Your task to perform on an android device: uninstall "Google Play services" Image 0: 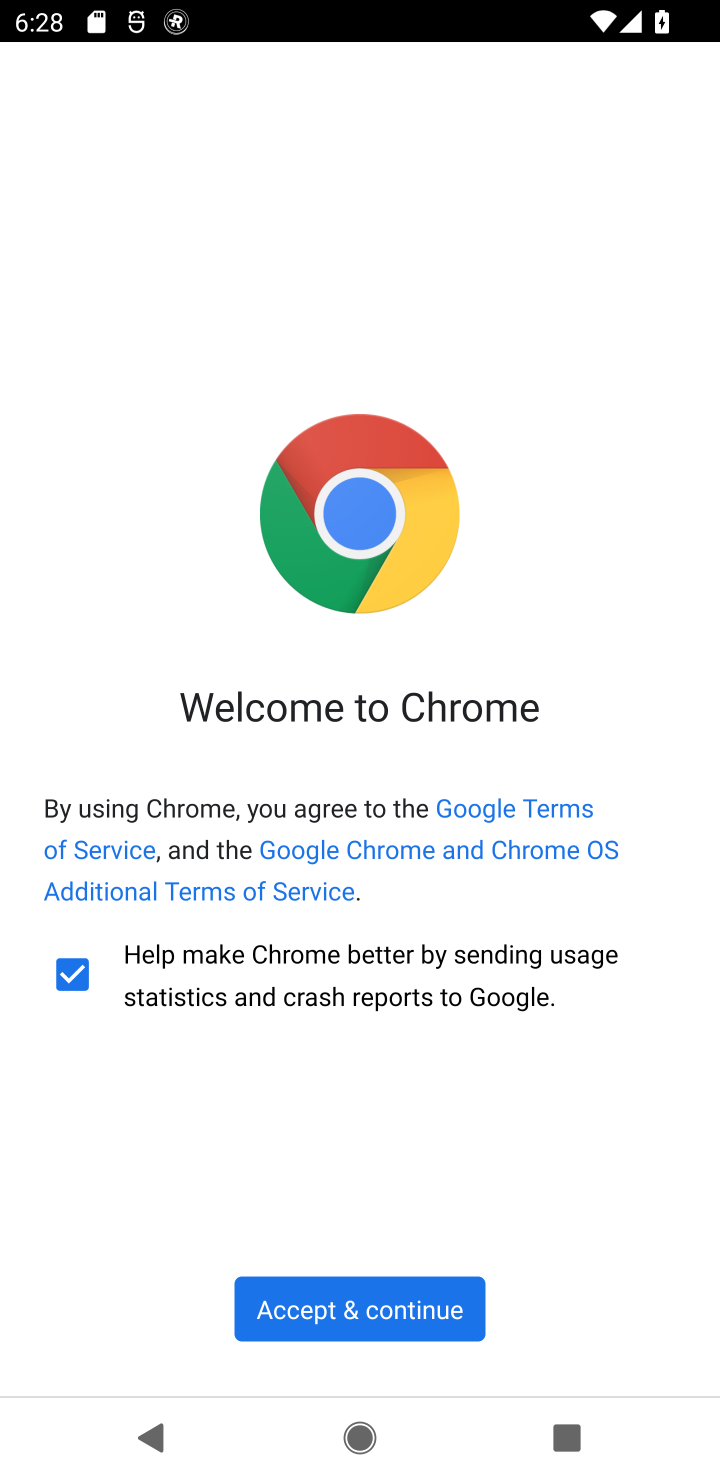
Step 0: press home button
Your task to perform on an android device: uninstall "Google Play services" Image 1: 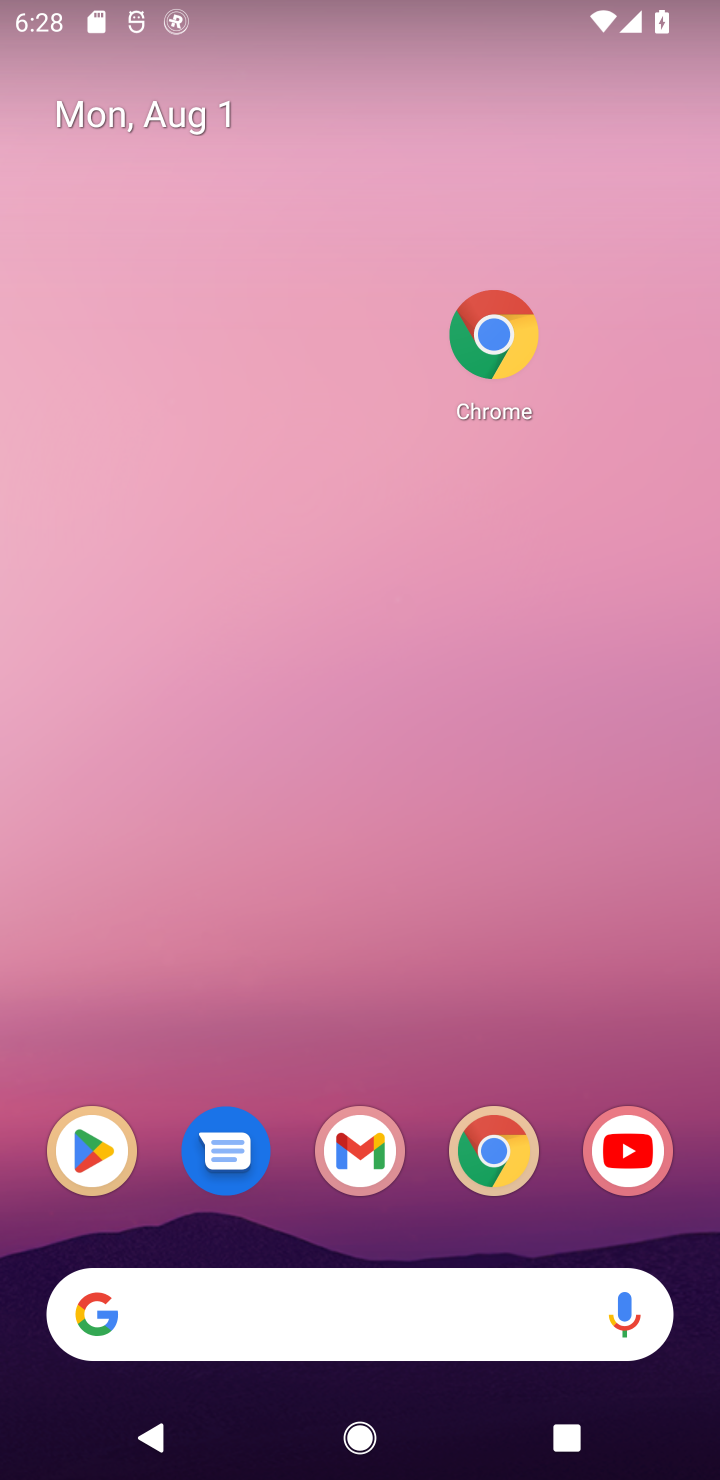
Step 1: click (102, 1155)
Your task to perform on an android device: uninstall "Google Play services" Image 2: 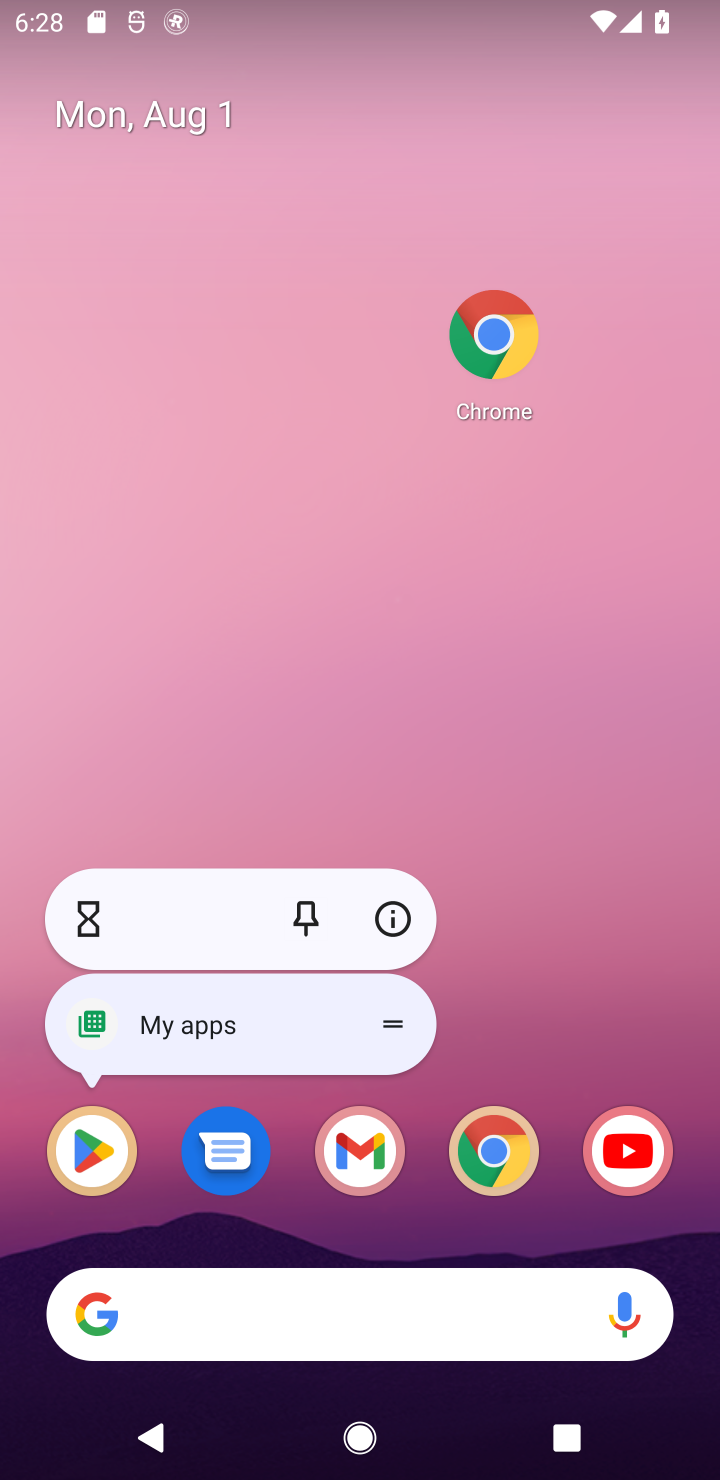
Step 2: click (97, 1159)
Your task to perform on an android device: uninstall "Google Play services" Image 3: 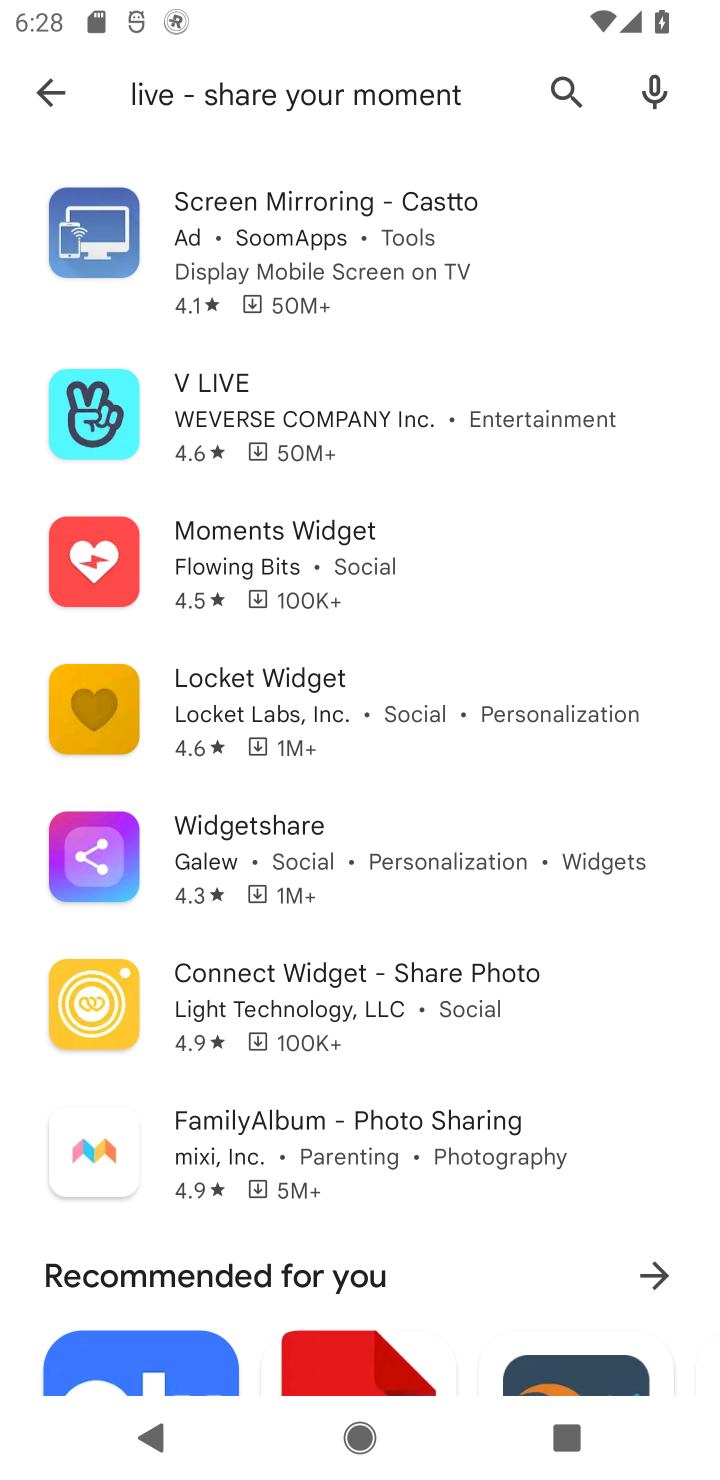
Step 3: click (553, 85)
Your task to perform on an android device: uninstall "Google Play services" Image 4: 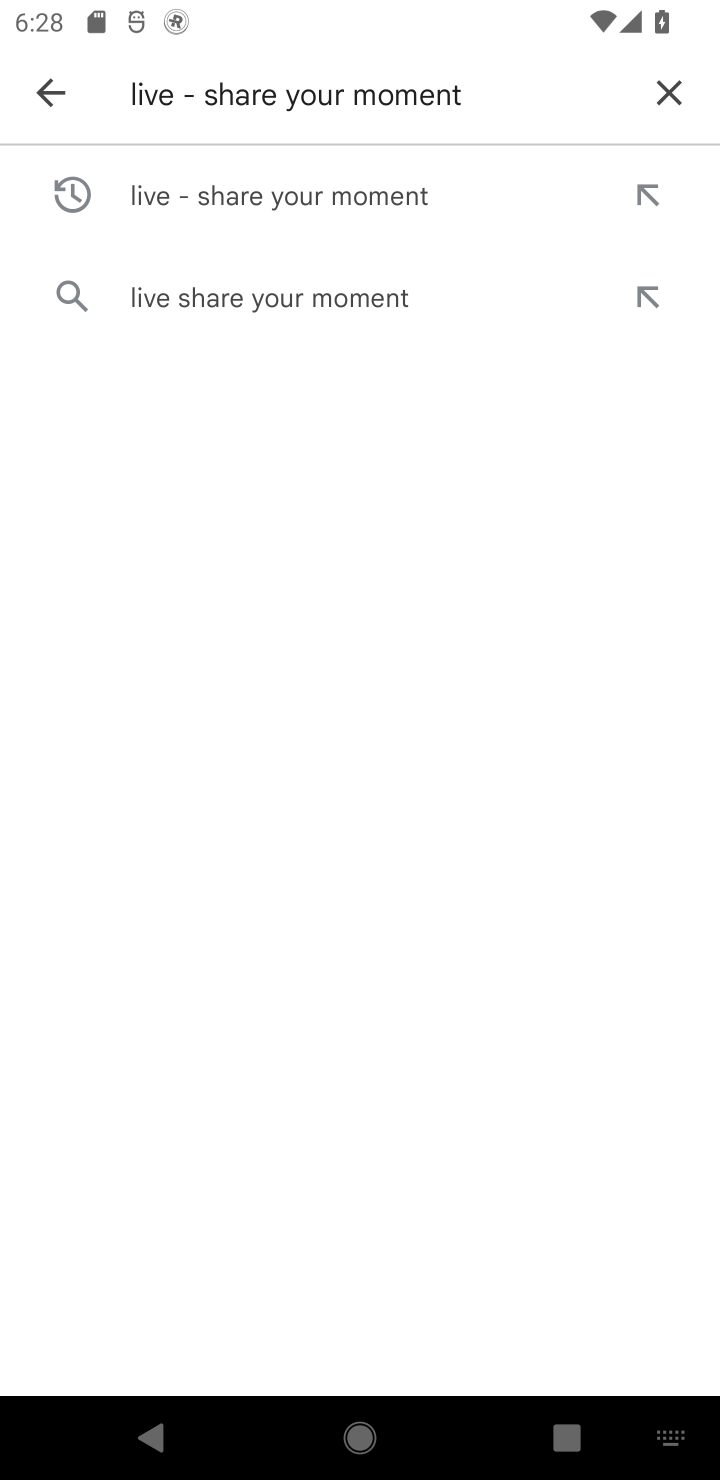
Step 4: click (661, 108)
Your task to perform on an android device: uninstall "Google Play services" Image 5: 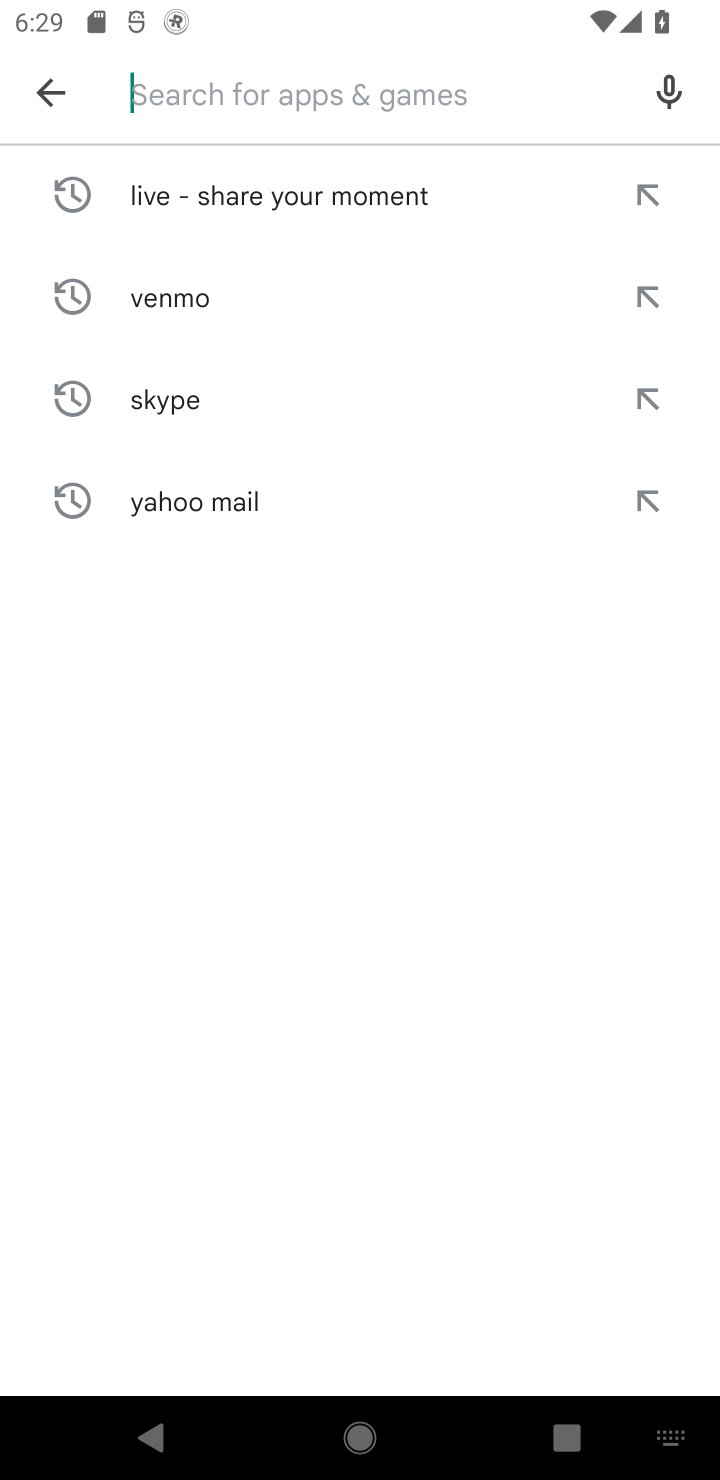
Step 5: click (441, 114)
Your task to perform on an android device: uninstall "Google Play services" Image 6: 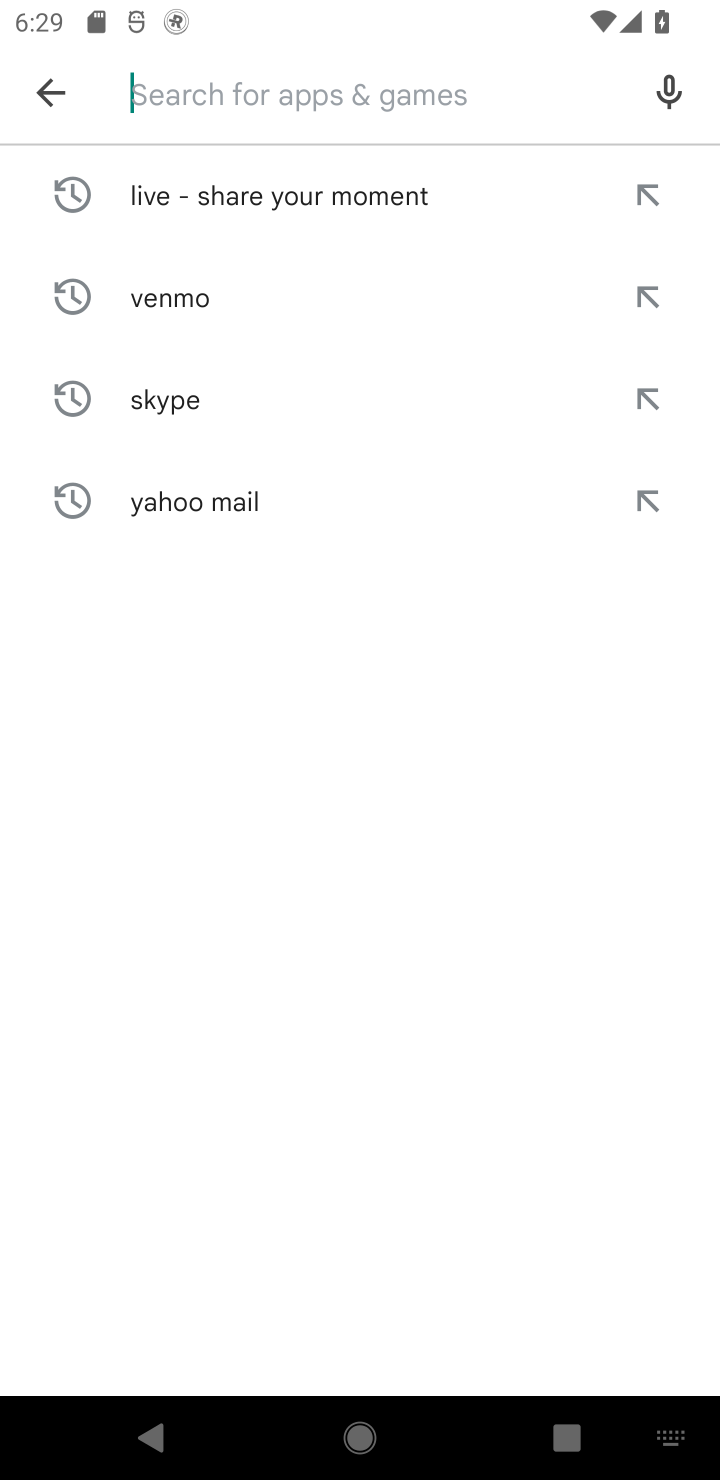
Step 6: type "Google Play services"
Your task to perform on an android device: uninstall "Google Play services" Image 7: 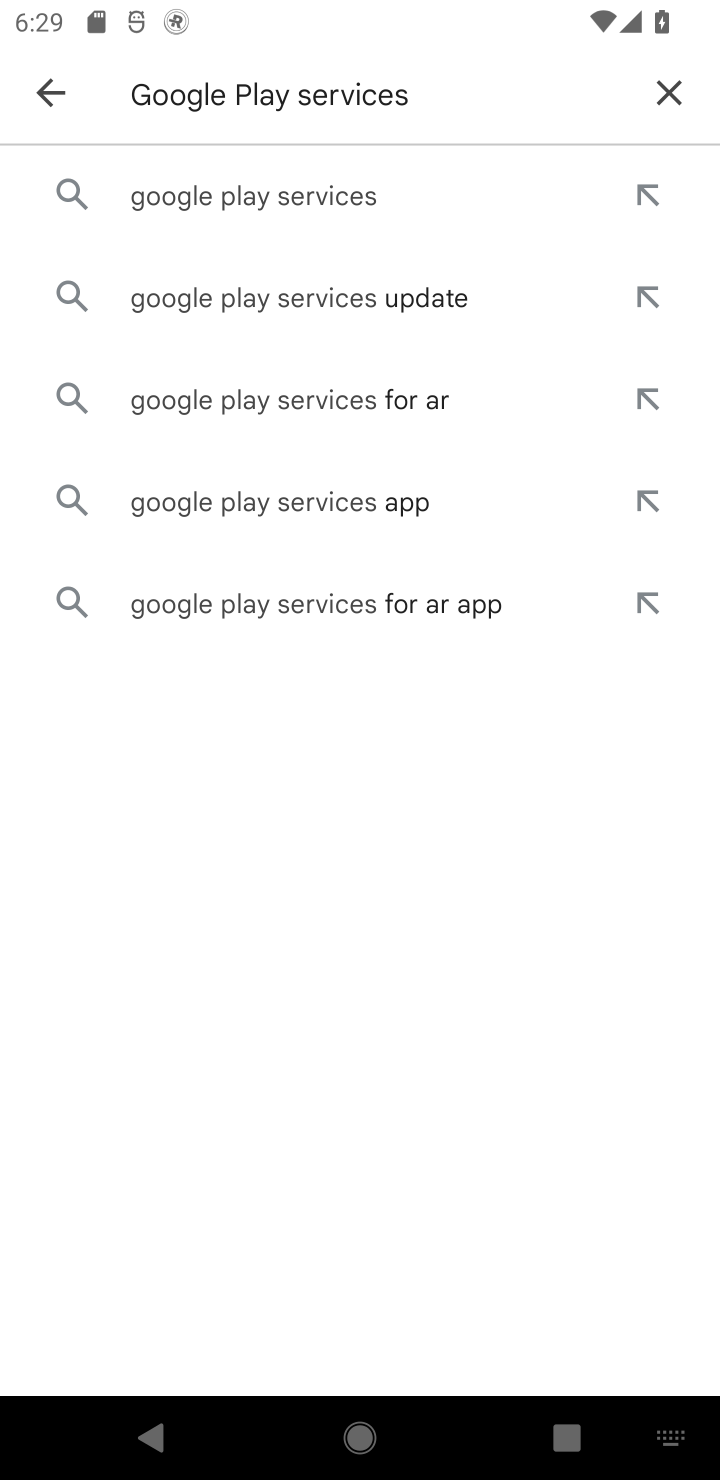
Step 7: click (299, 191)
Your task to perform on an android device: uninstall "Google Play services" Image 8: 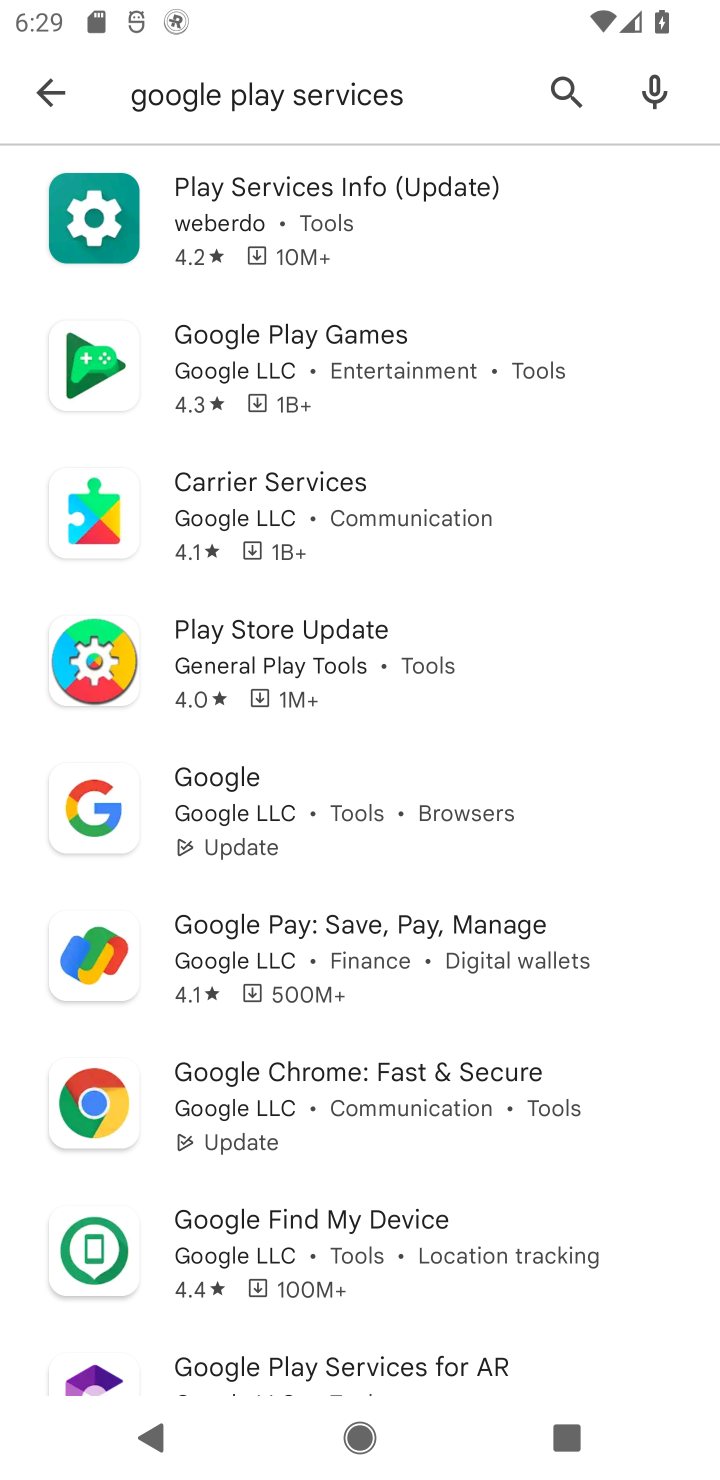
Step 8: drag from (476, 792) to (459, 294)
Your task to perform on an android device: uninstall "Google Play services" Image 9: 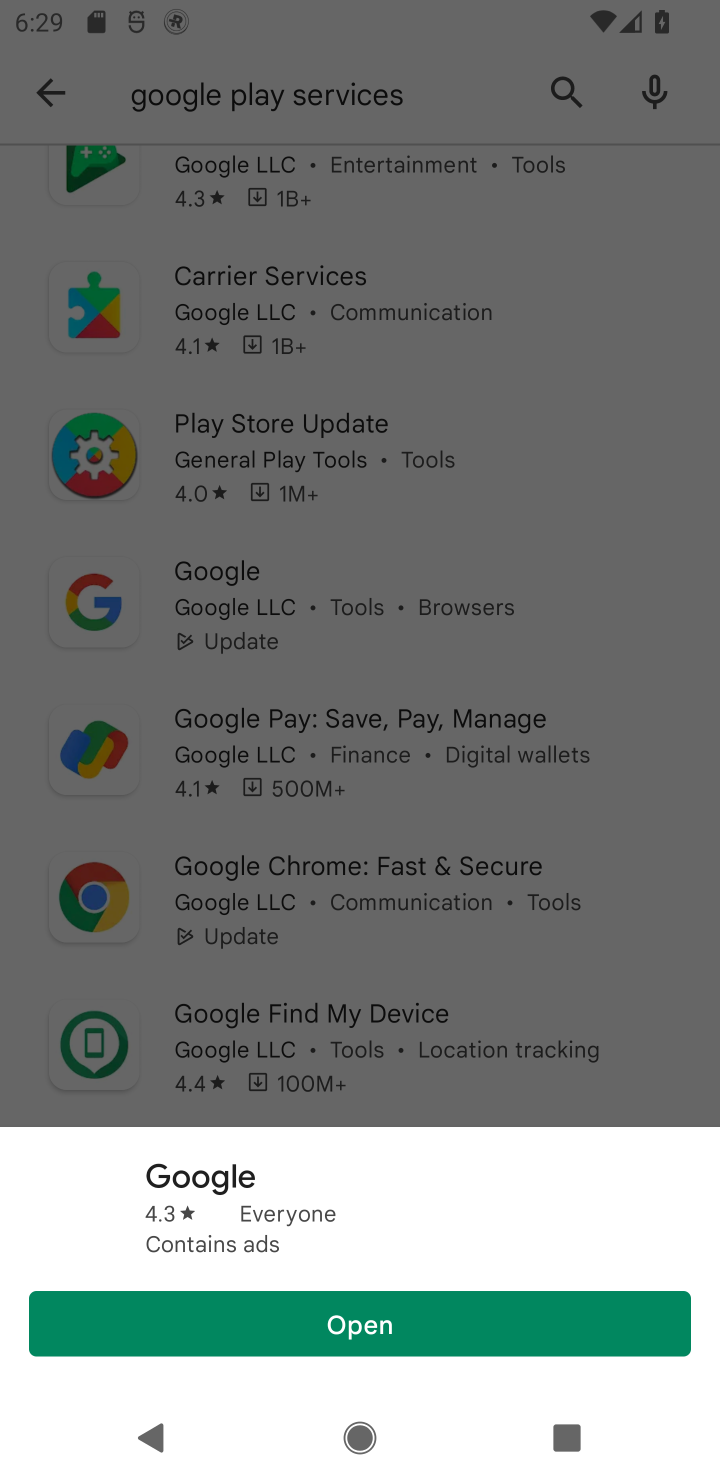
Step 9: drag from (404, 1020) to (469, 397)
Your task to perform on an android device: uninstall "Google Play services" Image 10: 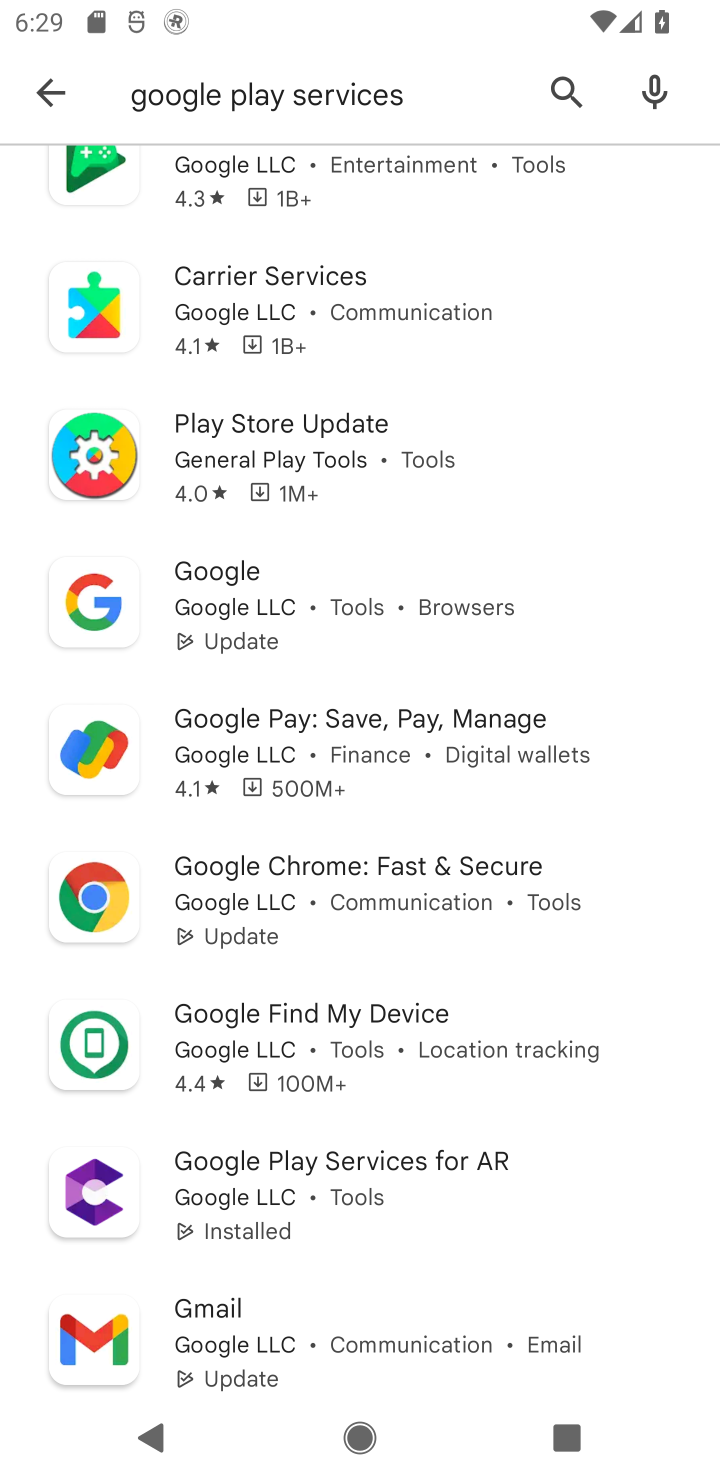
Step 10: drag from (400, 1089) to (424, 728)
Your task to perform on an android device: uninstall "Google Play services" Image 11: 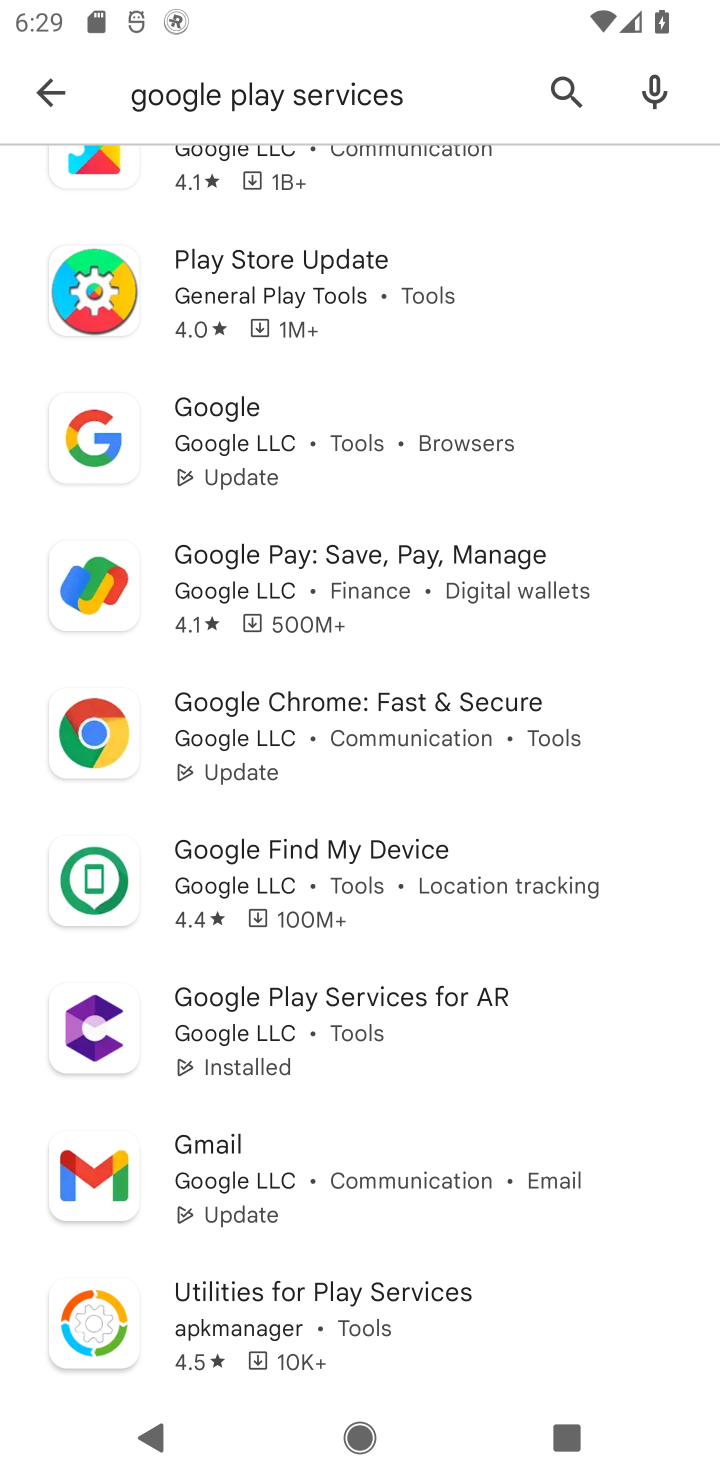
Step 11: click (255, 1012)
Your task to perform on an android device: uninstall "Google Play services" Image 12: 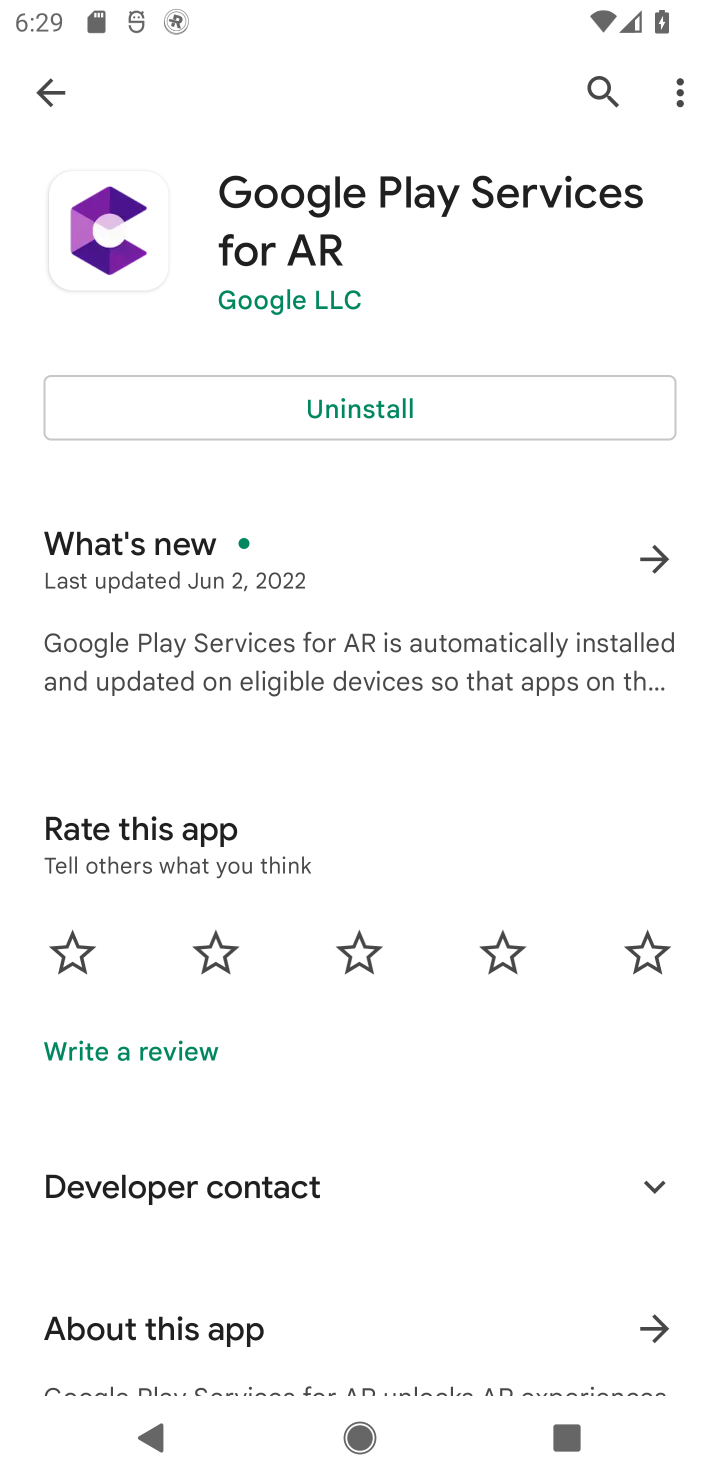
Step 12: click (331, 402)
Your task to perform on an android device: uninstall "Google Play services" Image 13: 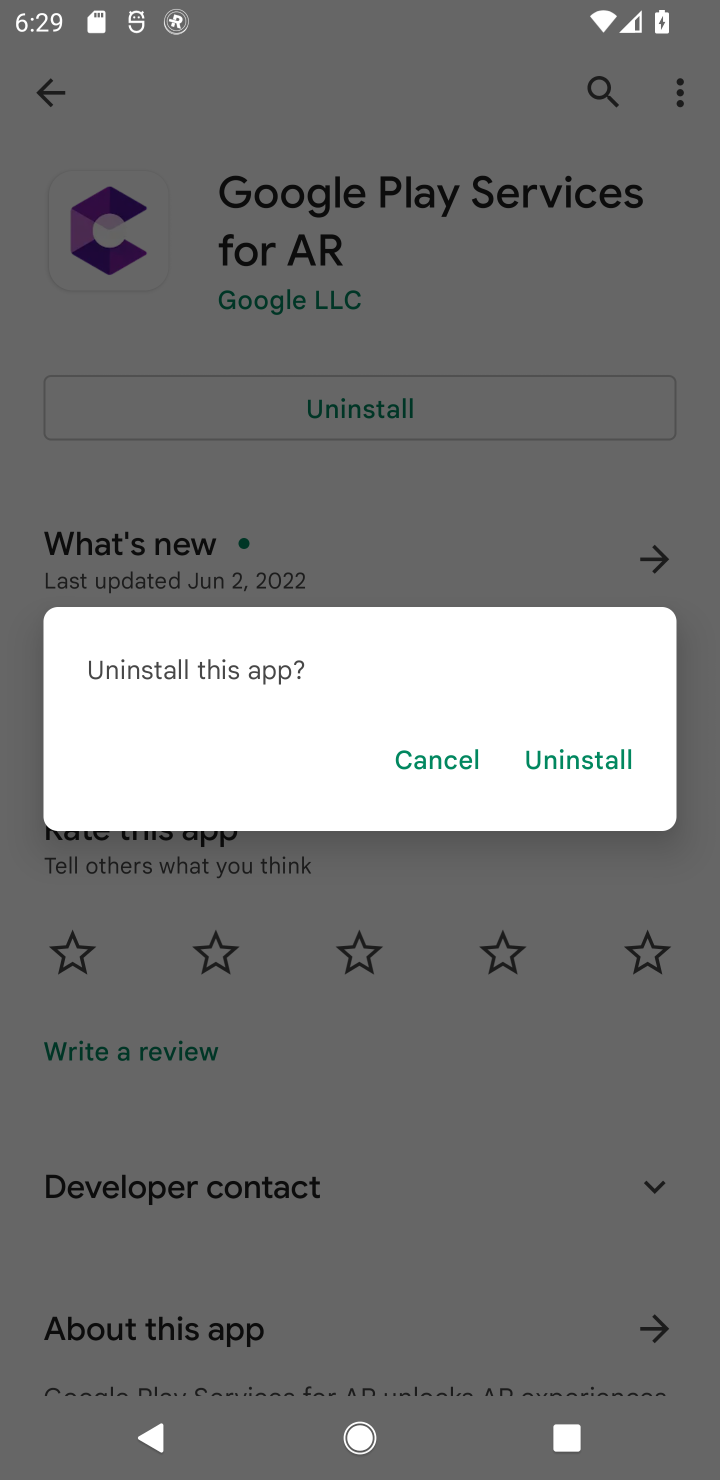
Step 13: click (550, 772)
Your task to perform on an android device: uninstall "Google Play services" Image 14: 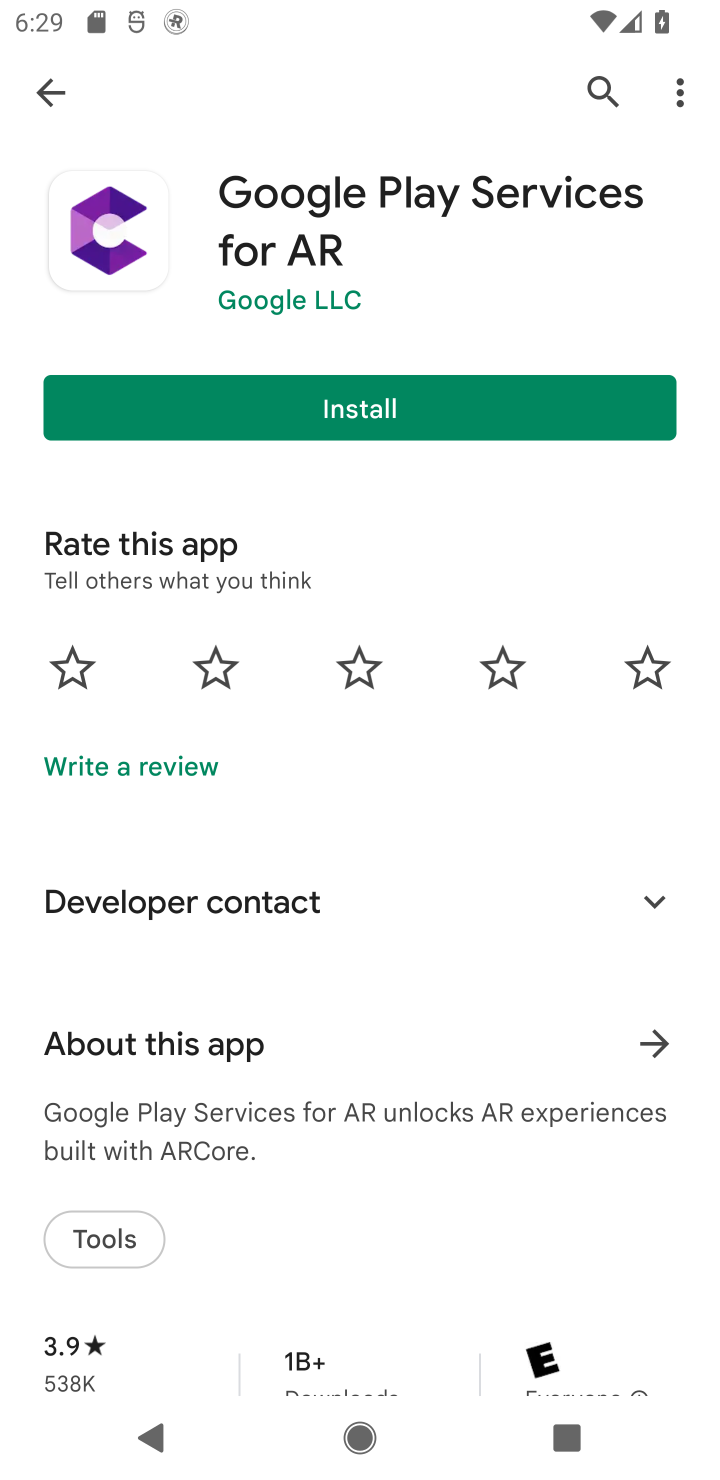
Step 14: task complete